Your task to perform on an android device: Open Amazon Image 0: 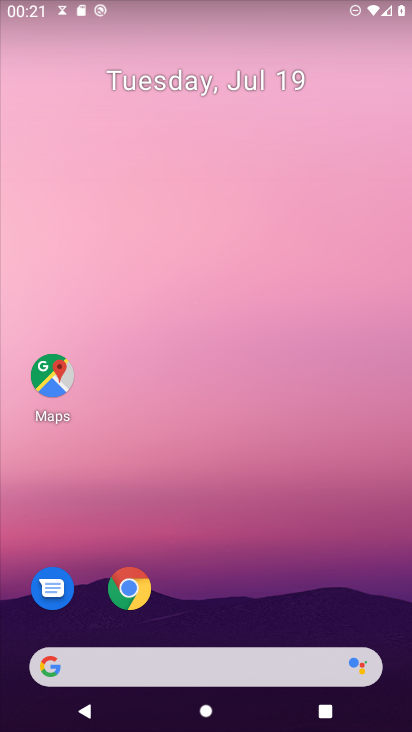
Step 0: press home button
Your task to perform on an android device: Open Amazon Image 1: 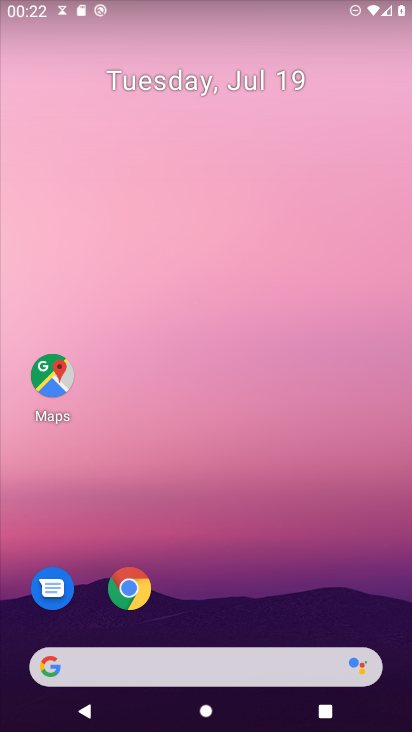
Step 1: click (38, 667)
Your task to perform on an android device: Open Amazon Image 2: 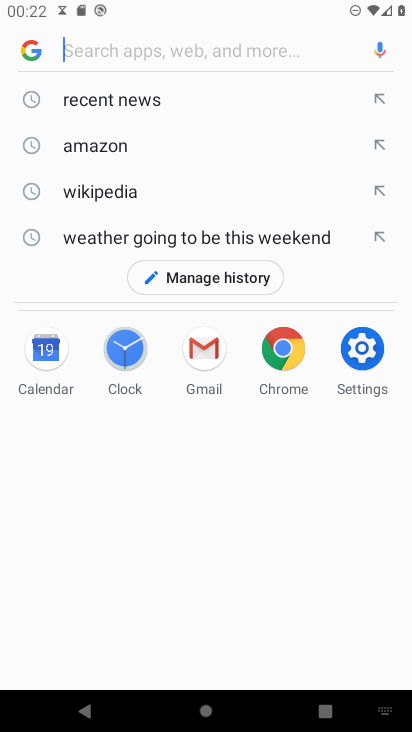
Step 2: click (91, 145)
Your task to perform on an android device: Open Amazon Image 3: 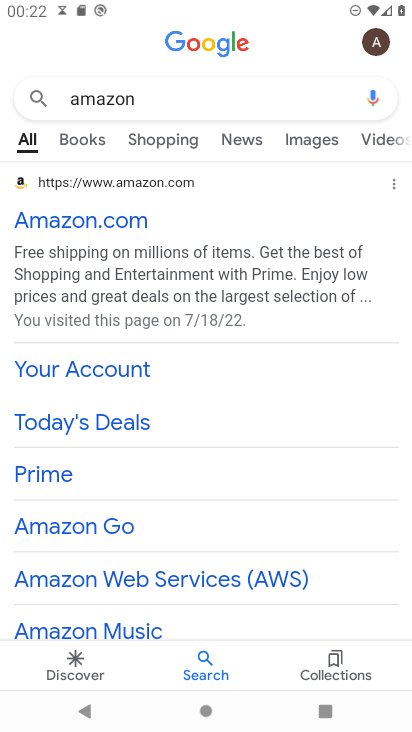
Step 3: click (74, 221)
Your task to perform on an android device: Open Amazon Image 4: 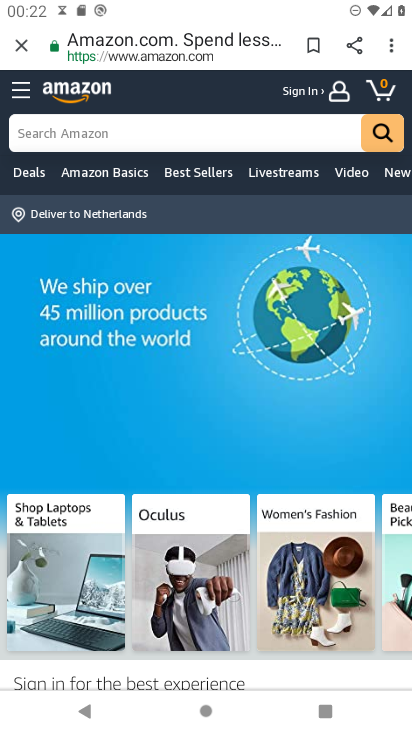
Step 4: task complete